Your task to perform on an android device: Go to display settings Image 0: 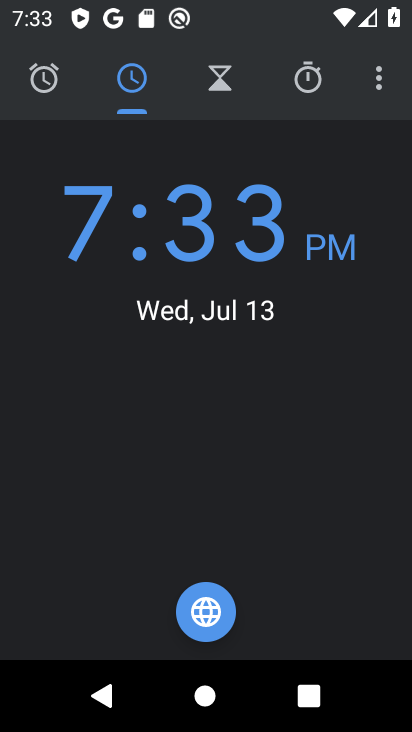
Step 0: press home button
Your task to perform on an android device: Go to display settings Image 1: 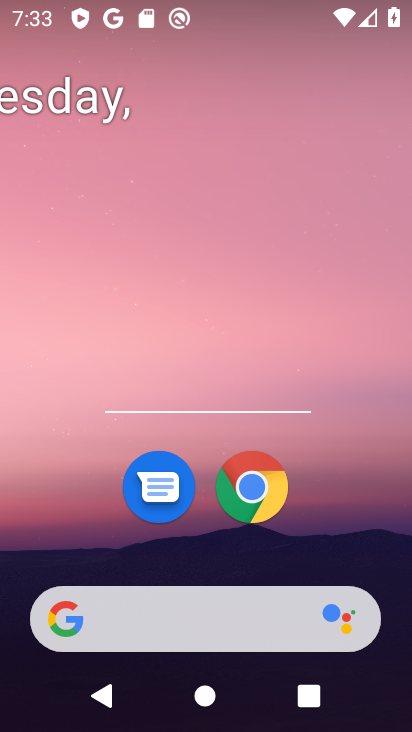
Step 1: drag from (215, 614) to (228, 119)
Your task to perform on an android device: Go to display settings Image 2: 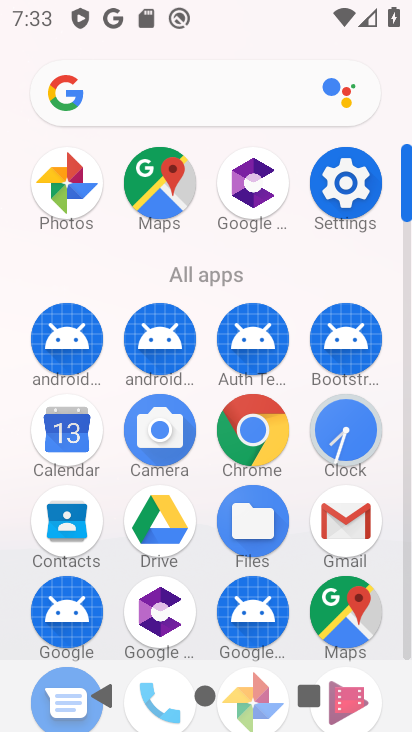
Step 2: click (357, 184)
Your task to perform on an android device: Go to display settings Image 3: 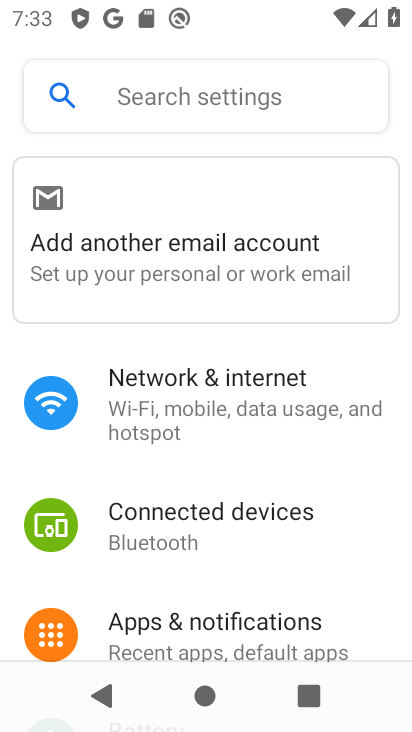
Step 3: drag from (147, 514) to (188, 237)
Your task to perform on an android device: Go to display settings Image 4: 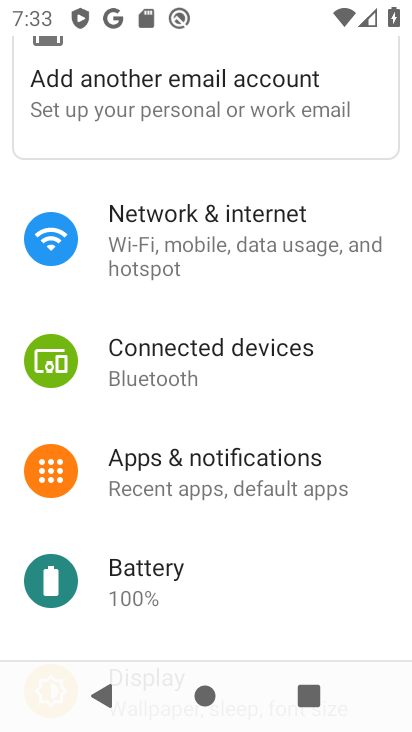
Step 4: drag from (156, 519) to (200, 238)
Your task to perform on an android device: Go to display settings Image 5: 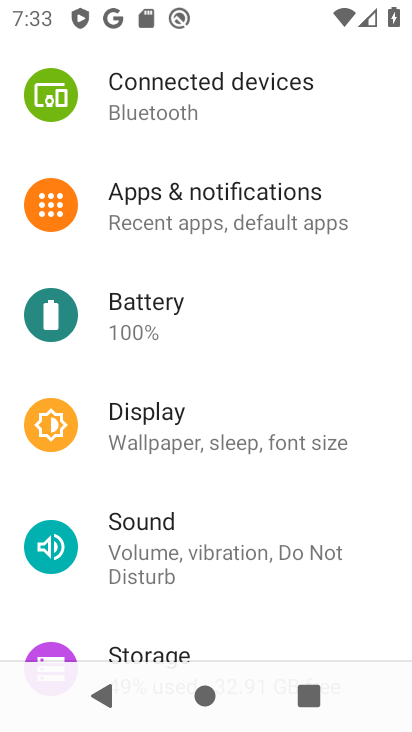
Step 5: click (178, 441)
Your task to perform on an android device: Go to display settings Image 6: 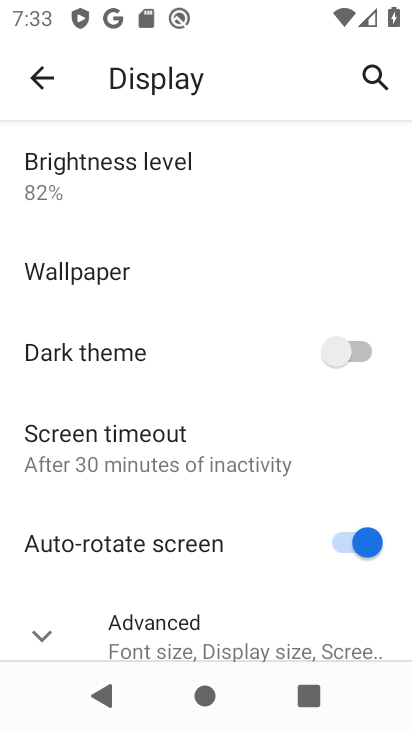
Step 6: task complete